Your task to perform on an android device: find snoozed emails in the gmail app Image 0: 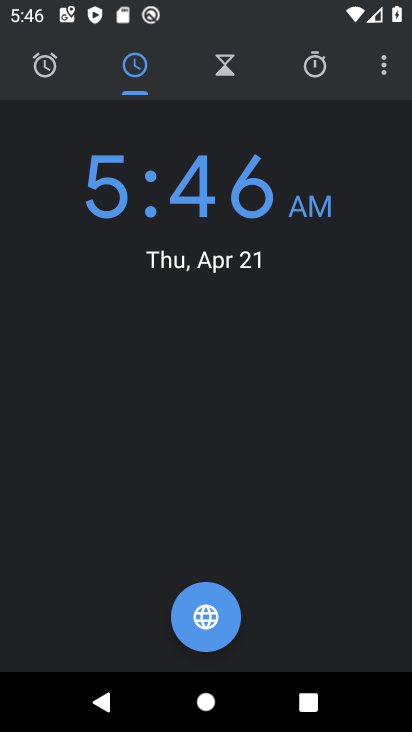
Step 0: press back button
Your task to perform on an android device: find snoozed emails in the gmail app Image 1: 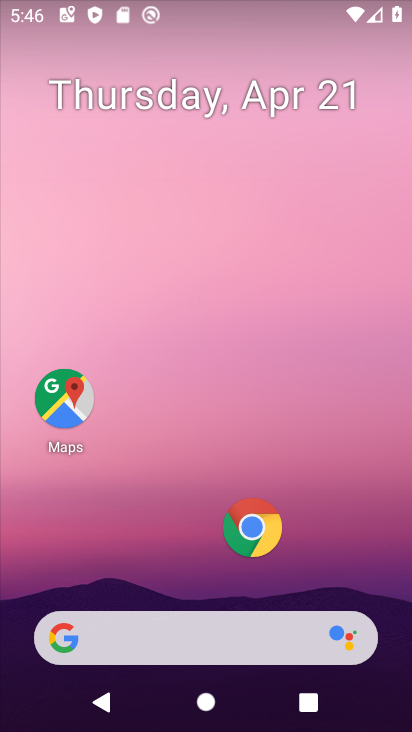
Step 1: drag from (187, 541) to (284, 25)
Your task to perform on an android device: find snoozed emails in the gmail app Image 2: 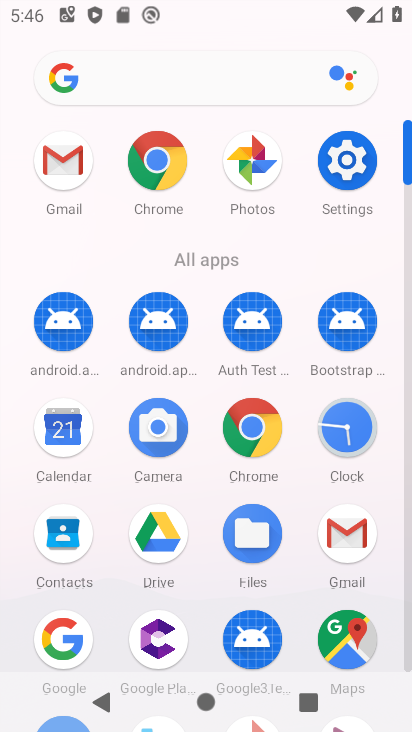
Step 2: click (78, 169)
Your task to perform on an android device: find snoozed emails in the gmail app Image 3: 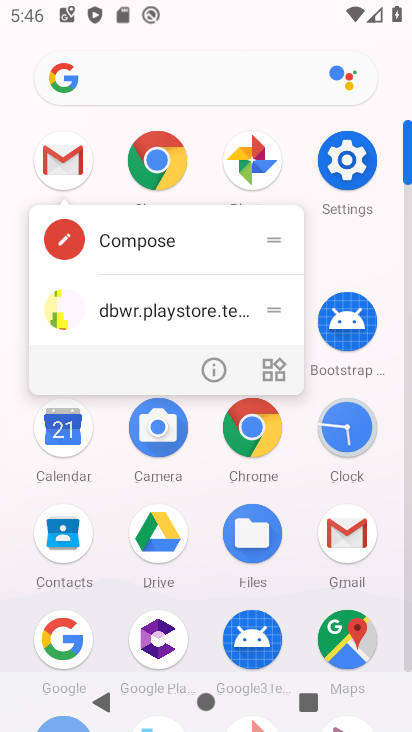
Step 3: click (69, 146)
Your task to perform on an android device: find snoozed emails in the gmail app Image 4: 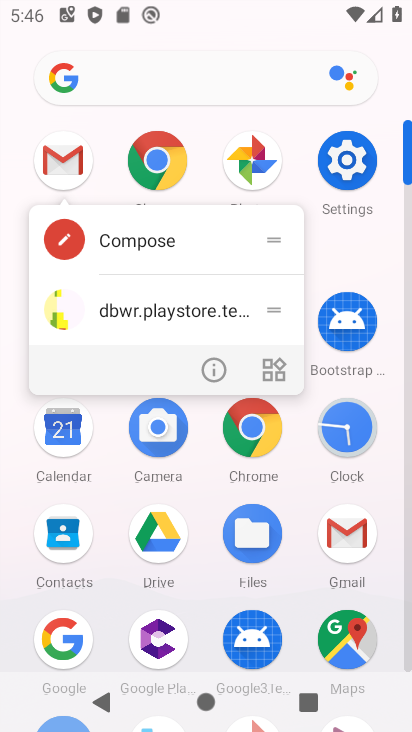
Step 4: click (63, 160)
Your task to perform on an android device: find snoozed emails in the gmail app Image 5: 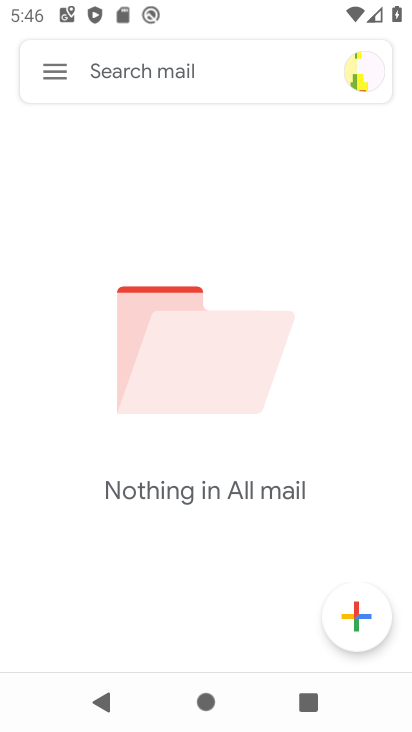
Step 5: click (62, 72)
Your task to perform on an android device: find snoozed emails in the gmail app Image 6: 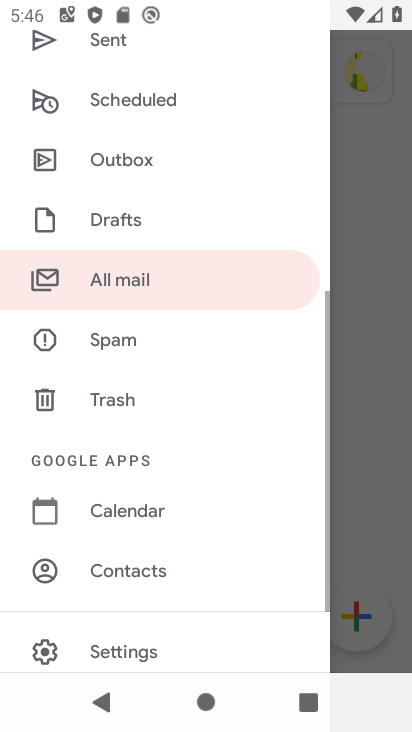
Step 6: drag from (143, 172) to (109, 624)
Your task to perform on an android device: find snoozed emails in the gmail app Image 7: 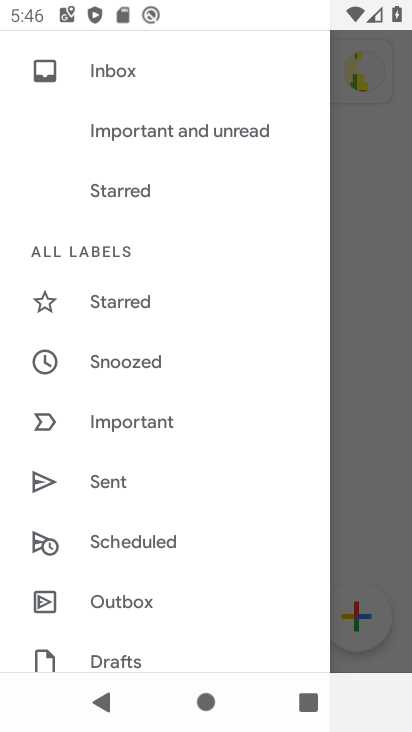
Step 7: click (119, 362)
Your task to perform on an android device: find snoozed emails in the gmail app Image 8: 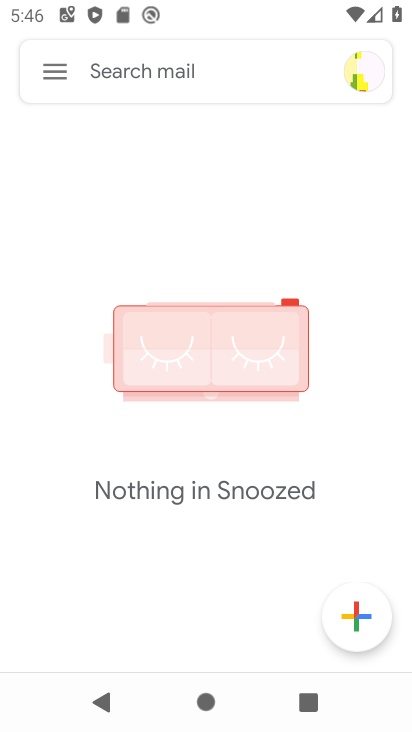
Step 8: task complete